Your task to perform on an android device: Go to calendar. Show me events next week Image 0: 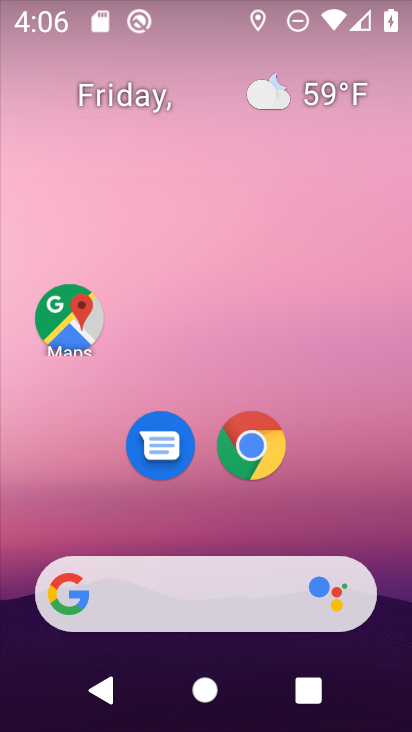
Step 0: drag from (408, 582) to (375, 127)
Your task to perform on an android device: Go to calendar. Show me events next week Image 1: 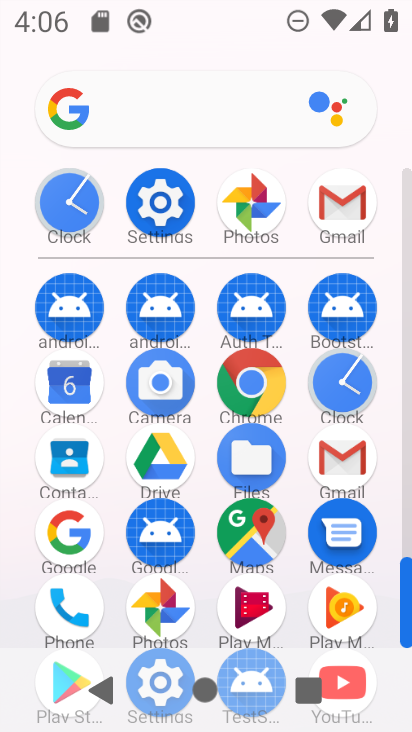
Step 1: click (65, 378)
Your task to perform on an android device: Go to calendar. Show me events next week Image 2: 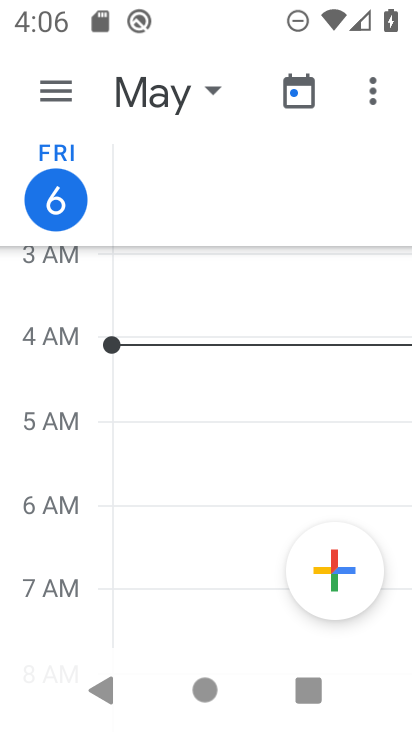
Step 2: click (51, 80)
Your task to perform on an android device: Go to calendar. Show me events next week Image 3: 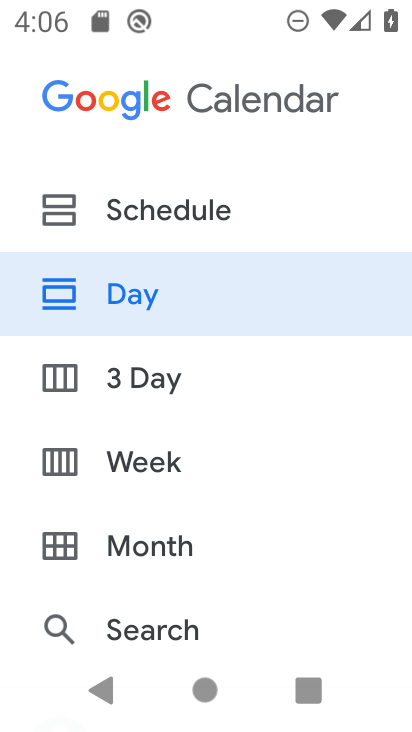
Step 3: click (130, 461)
Your task to perform on an android device: Go to calendar. Show me events next week Image 4: 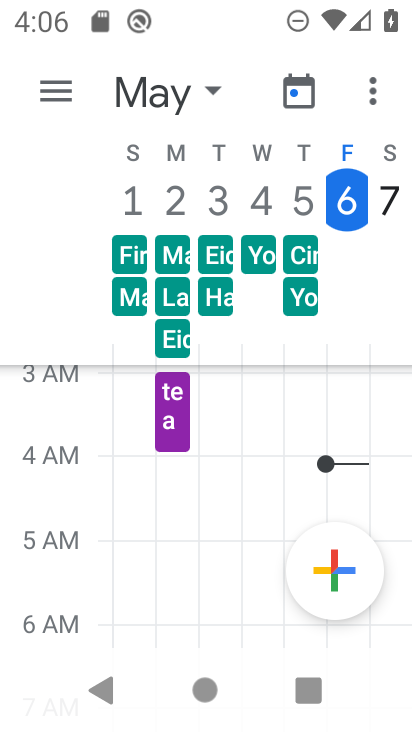
Step 4: click (205, 82)
Your task to perform on an android device: Go to calendar. Show me events next week Image 5: 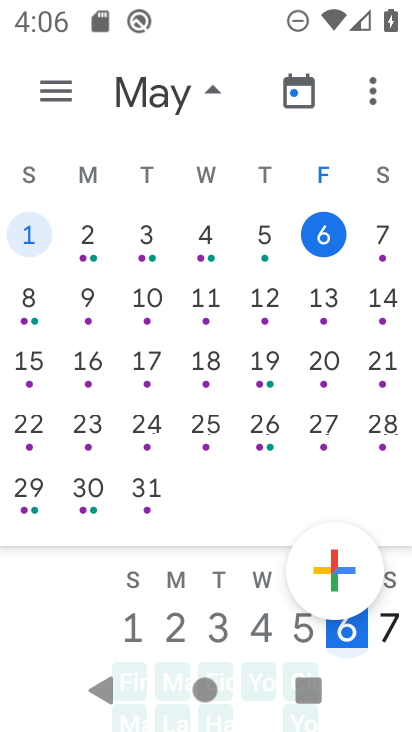
Step 5: click (37, 303)
Your task to perform on an android device: Go to calendar. Show me events next week Image 6: 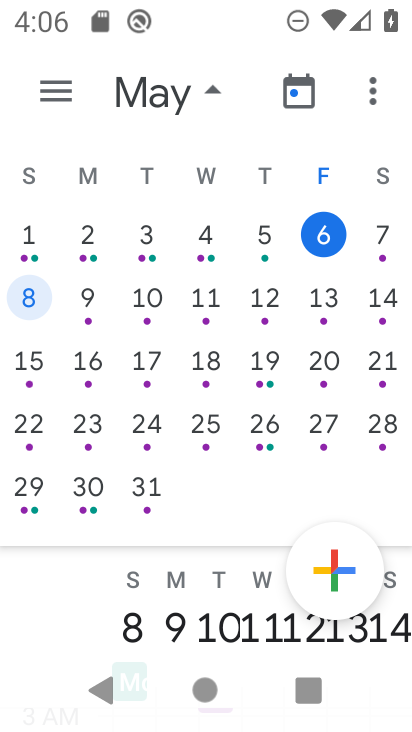
Step 6: task complete